Your task to perform on an android device: Show me the alarms in the clock app Image 0: 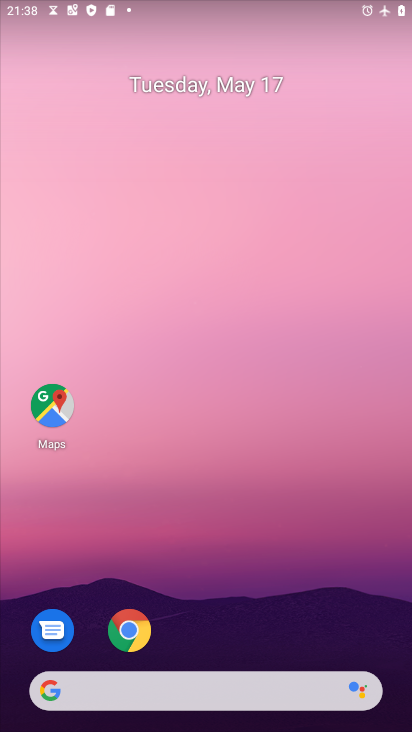
Step 0: click (400, 565)
Your task to perform on an android device: Show me the alarms in the clock app Image 1: 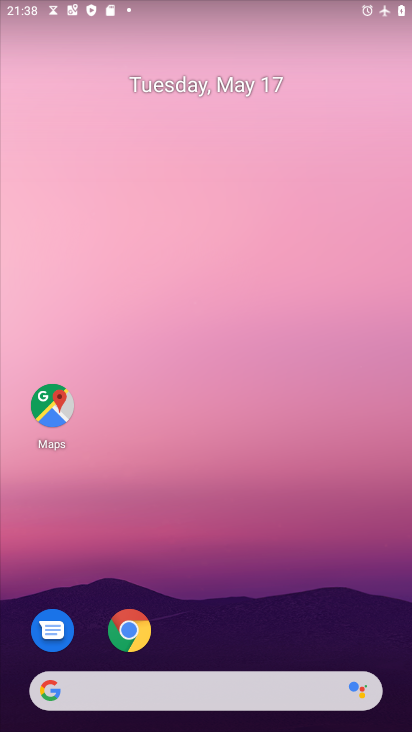
Step 1: drag from (174, 656) to (178, 106)
Your task to perform on an android device: Show me the alarms in the clock app Image 2: 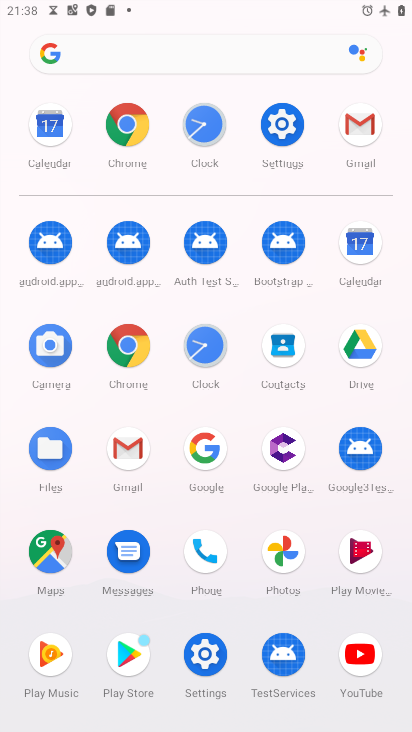
Step 2: click (207, 361)
Your task to perform on an android device: Show me the alarms in the clock app Image 3: 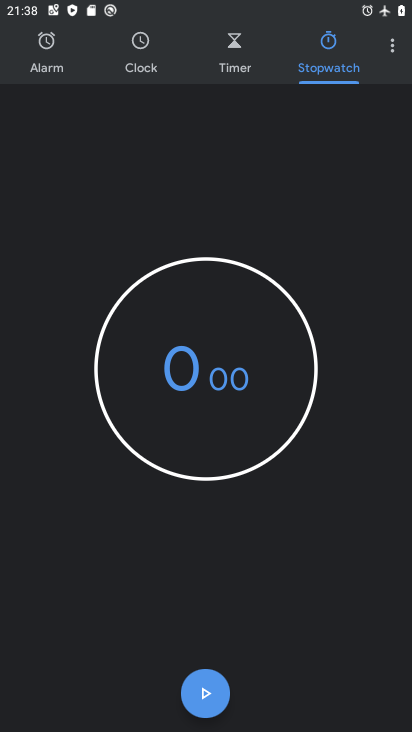
Step 3: click (41, 56)
Your task to perform on an android device: Show me the alarms in the clock app Image 4: 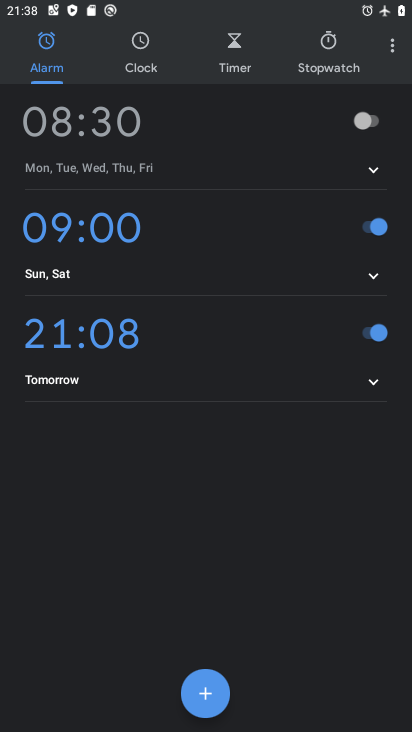
Step 4: task complete